Your task to perform on an android device: Is it going to rain today? Image 0: 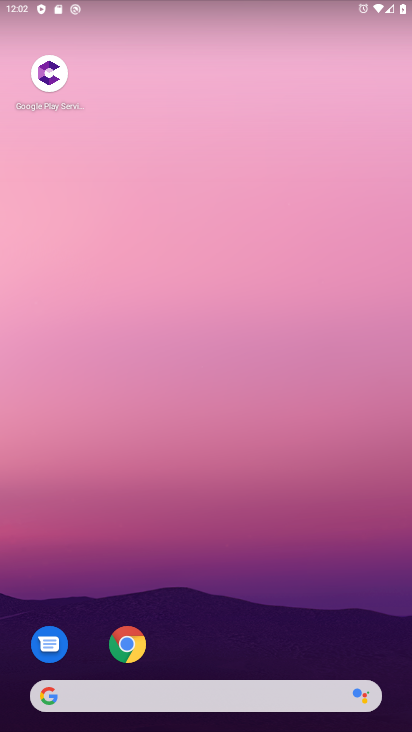
Step 0: drag from (282, 669) to (188, 75)
Your task to perform on an android device: Is it going to rain today? Image 1: 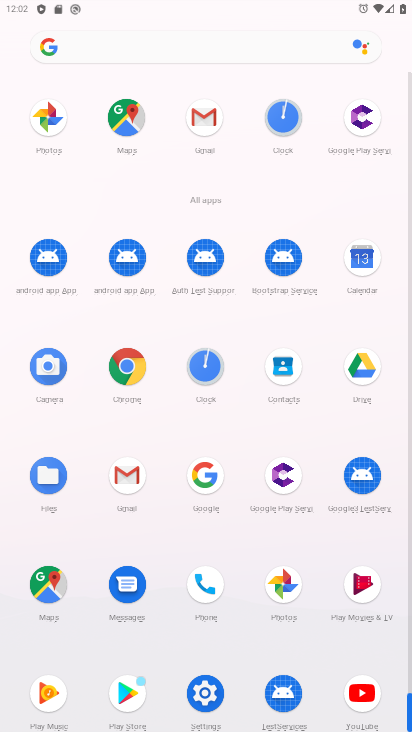
Step 1: click (134, 358)
Your task to perform on an android device: Is it going to rain today? Image 2: 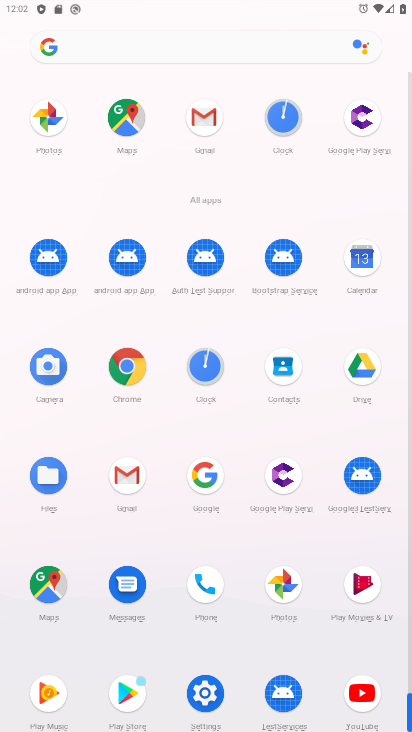
Step 2: click (126, 355)
Your task to perform on an android device: Is it going to rain today? Image 3: 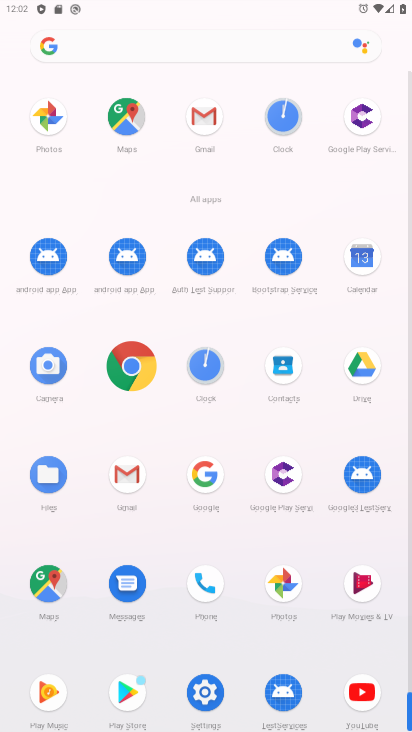
Step 3: click (124, 354)
Your task to perform on an android device: Is it going to rain today? Image 4: 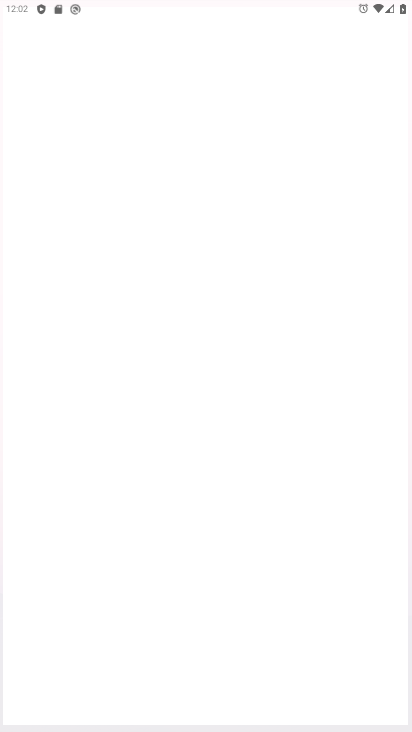
Step 4: click (122, 354)
Your task to perform on an android device: Is it going to rain today? Image 5: 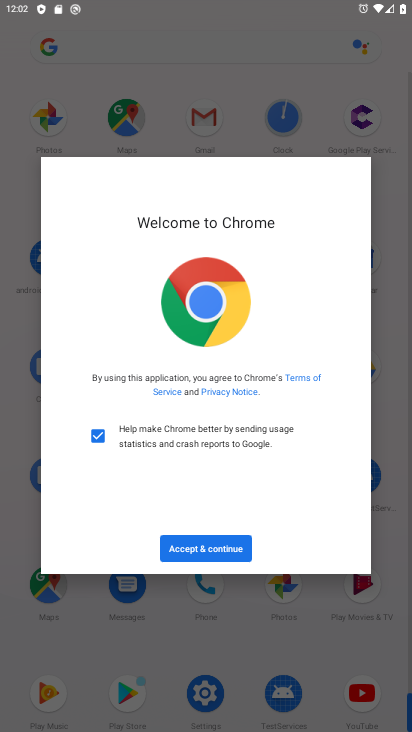
Step 5: click (225, 549)
Your task to perform on an android device: Is it going to rain today? Image 6: 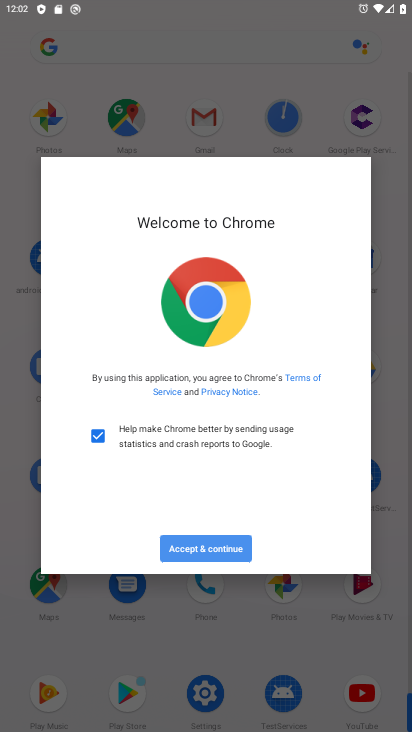
Step 6: click (222, 548)
Your task to perform on an android device: Is it going to rain today? Image 7: 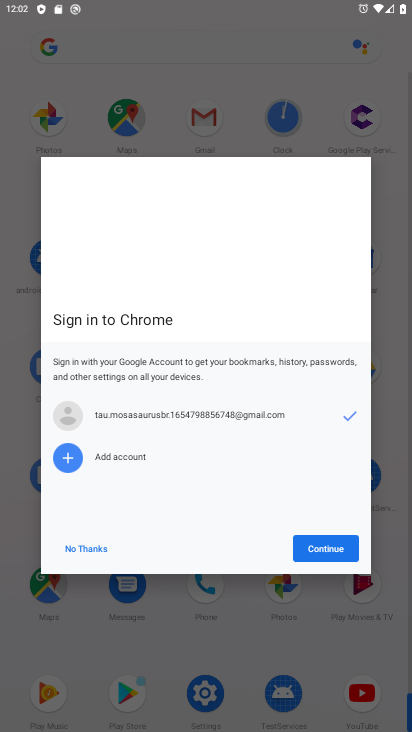
Step 7: click (231, 542)
Your task to perform on an android device: Is it going to rain today? Image 8: 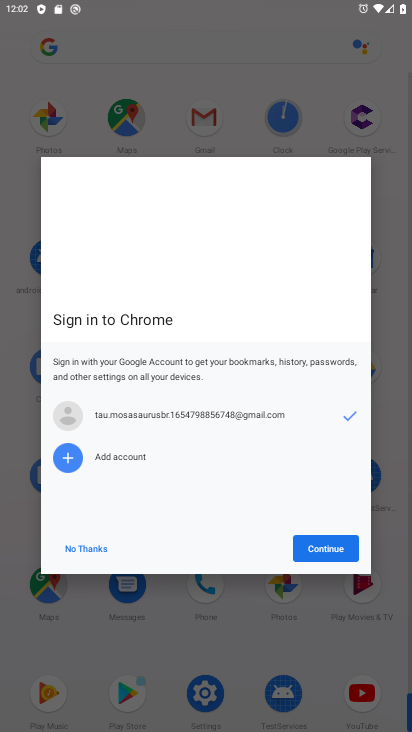
Step 8: click (232, 539)
Your task to perform on an android device: Is it going to rain today? Image 9: 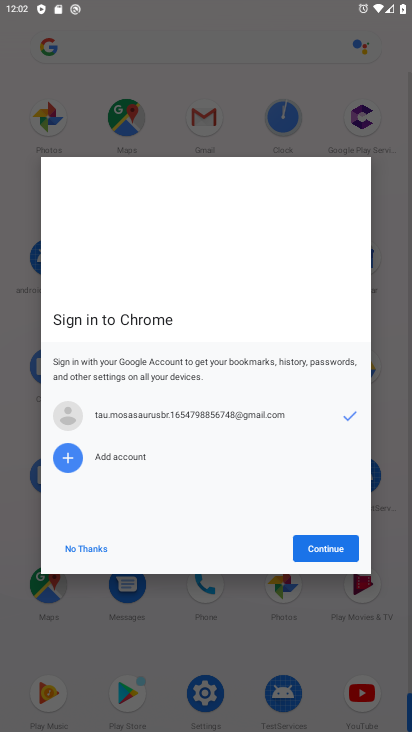
Step 9: click (328, 548)
Your task to perform on an android device: Is it going to rain today? Image 10: 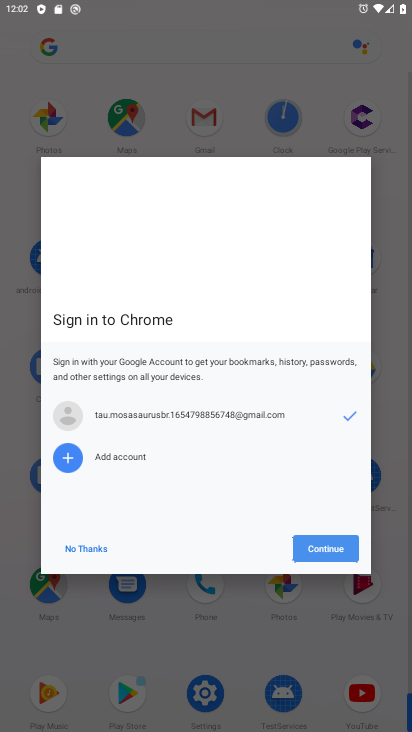
Step 10: click (332, 537)
Your task to perform on an android device: Is it going to rain today? Image 11: 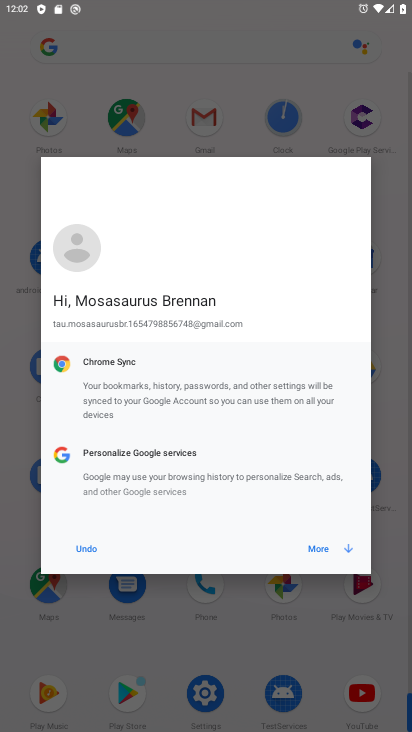
Step 11: click (331, 532)
Your task to perform on an android device: Is it going to rain today? Image 12: 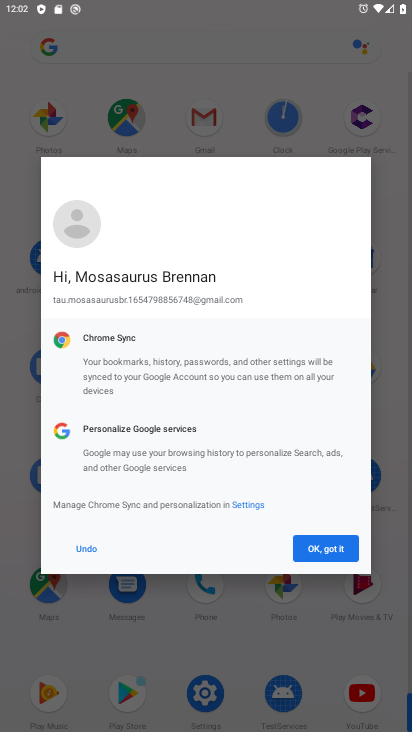
Step 12: click (335, 531)
Your task to perform on an android device: Is it going to rain today? Image 13: 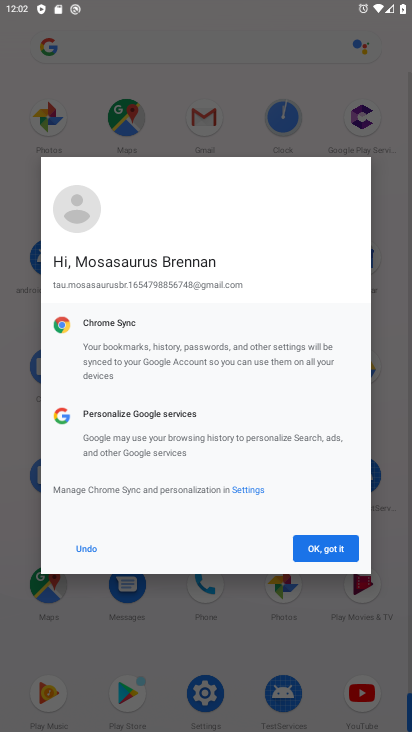
Step 13: click (334, 536)
Your task to perform on an android device: Is it going to rain today? Image 14: 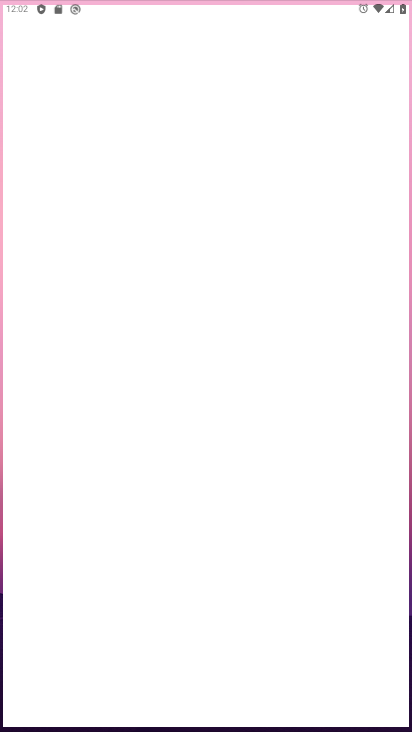
Step 14: click (323, 539)
Your task to perform on an android device: Is it going to rain today? Image 15: 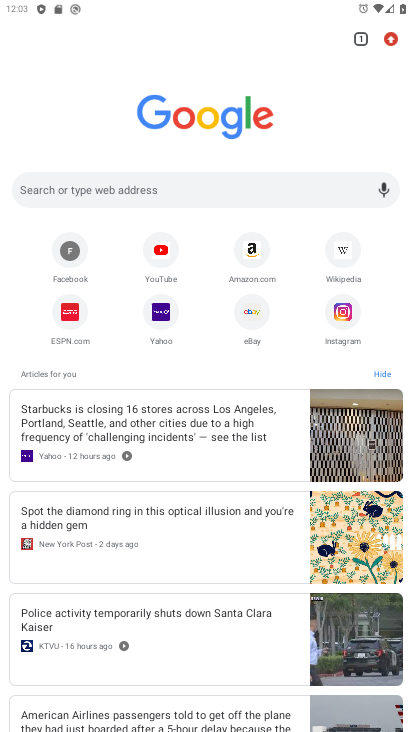
Step 15: type "is it going to rain today?"
Your task to perform on an android device: Is it going to rain today? Image 16: 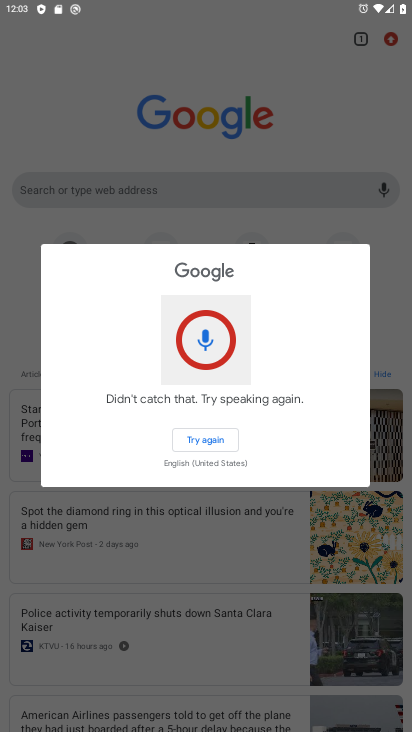
Step 16: click (305, 220)
Your task to perform on an android device: Is it going to rain today? Image 17: 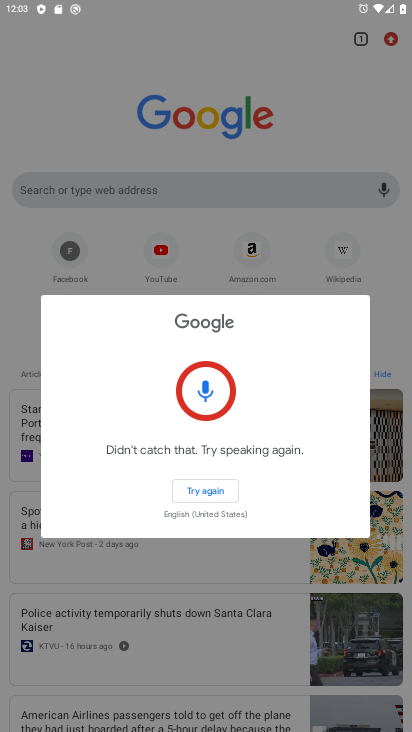
Step 17: click (304, 221)
Your task to perform on an android device: Is it going to rain today? Image 18: 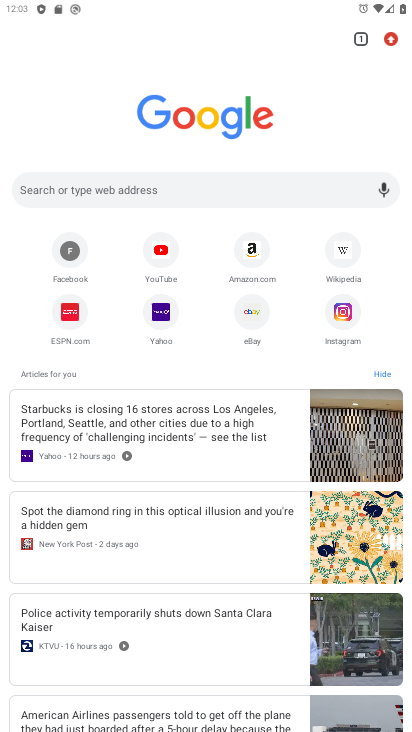
Step 18: click (70, 177)
Your task to perform on an android device: Is it going to rain today? Image 19: 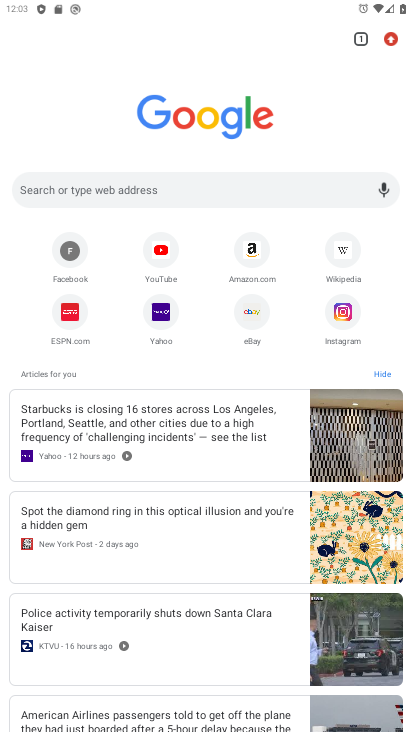
Step 19: click (61, 213)
Your task to perform on an android device: Is it going to rain today? Image 20: 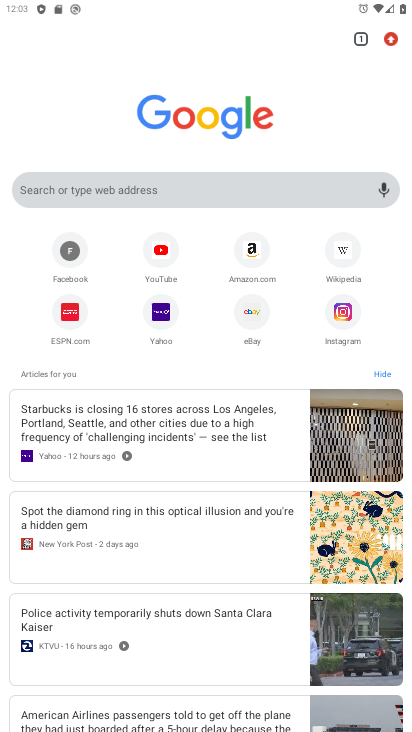
Step 20: click (55, 184)
Your task to perform on an android device: Is it going to rain today? Image 21: 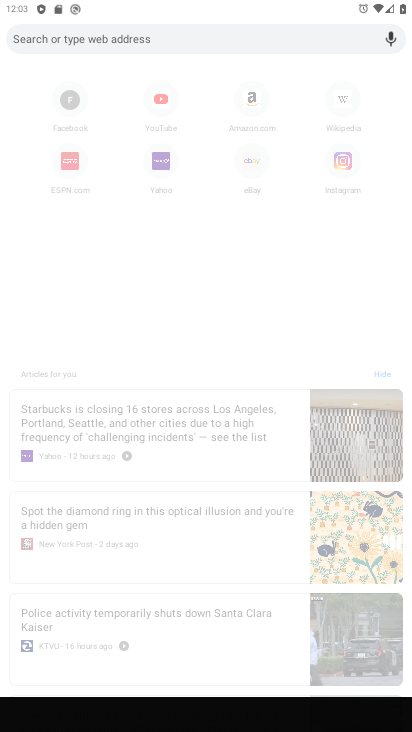
Step 21: click (55, 184)
Your task to perform on an android device: Is it going to rain today? Image 22: 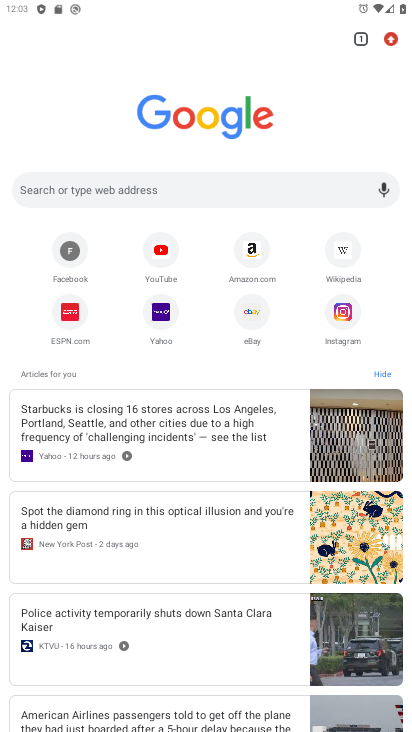
Step 22: click (95, 192)
Your task to perform on an android device: Is it going to rain today? Image 23: 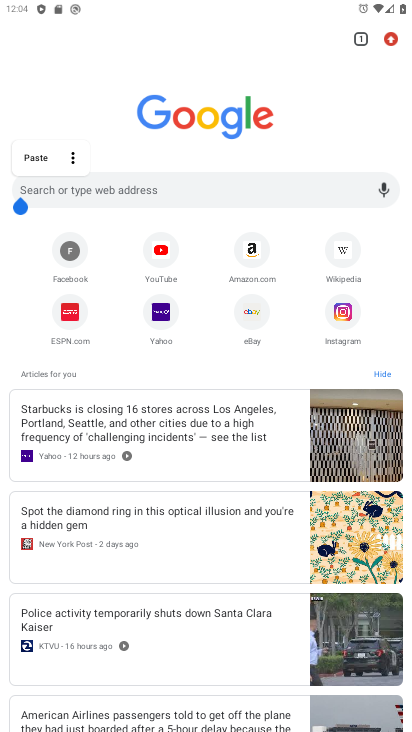
Step 23: click (89, 187)
Your task to perform on an android device: Is it going to rain today? Image 24: 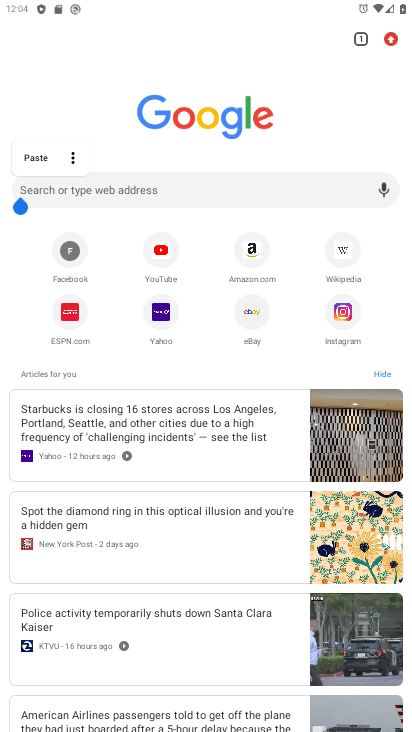
Step 24: click (85, 191)
Your task to perform on an android device: Is it going to rain today? Image 25: 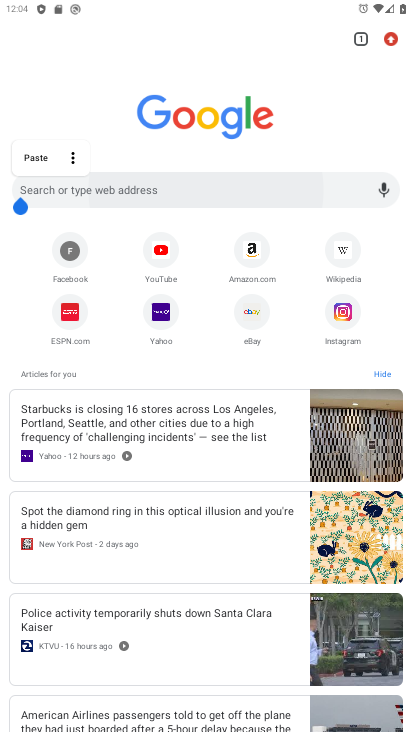
Step 25: click (85, 191)
Your task to perform on an android device: Is it going to rain today? Image 26: 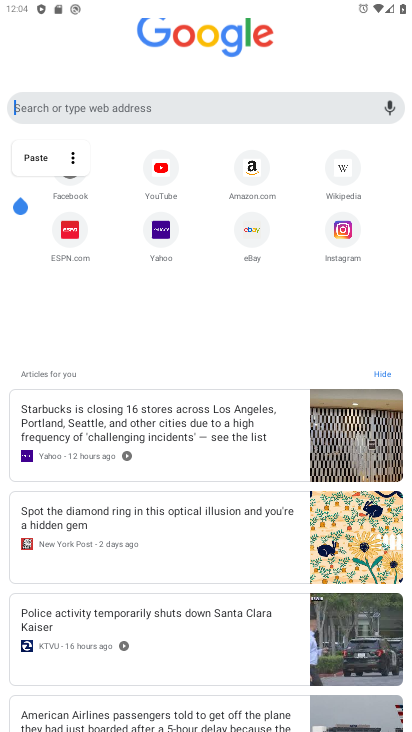
Step 26: click (85, 191)
Your task to perform on an android device: Is it going to rain today? Image 27: 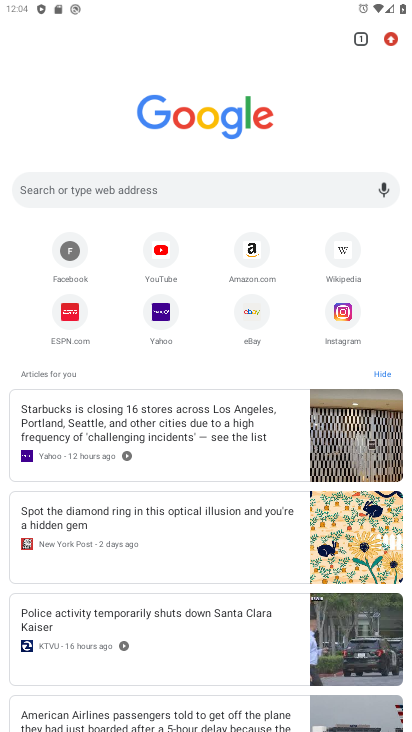
Step 27: click (62, 185)
Your task to perform on an android device: Is it going to rain today? Image 28: 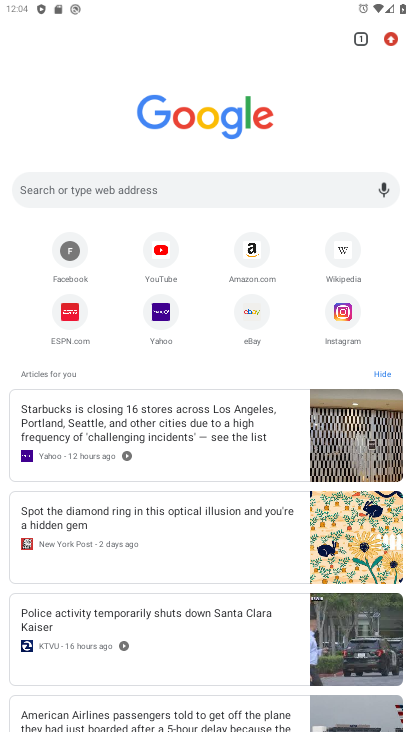
Step 28: click (62, 185)
Your task to perform on an android device: Is it going to rain today? Image 29: 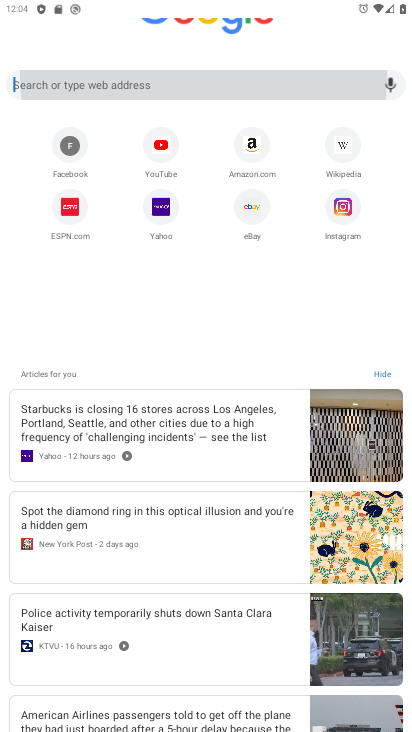
Step 29: click (62, 185)
Your task to perform on an android device: Is it going to rain today? Image 30: 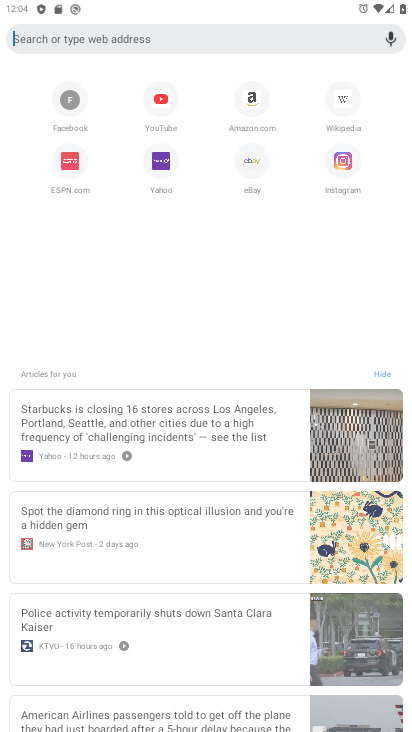
Step 30: click (62, 185)
Your task to perform on an android device: Is it going to rain today? Image 31: 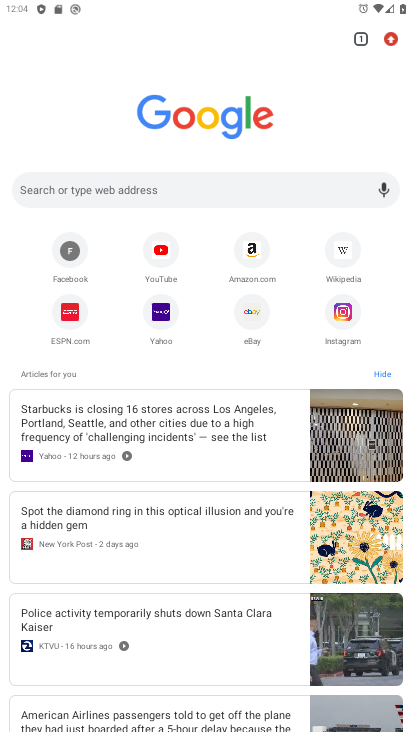
Step 31: type "is it going to rain today?"
Your task to perform on an android device: Is it going to rain today? Image 32: 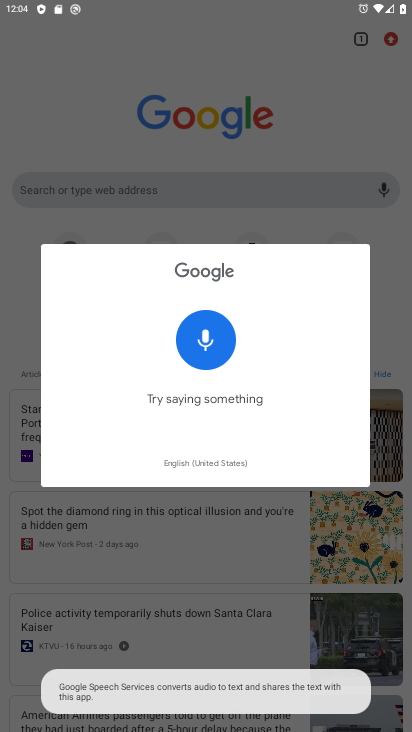
Step 32: click (257, 217)
Your task to perform on an android device: Is it going to rain today? Image 33: 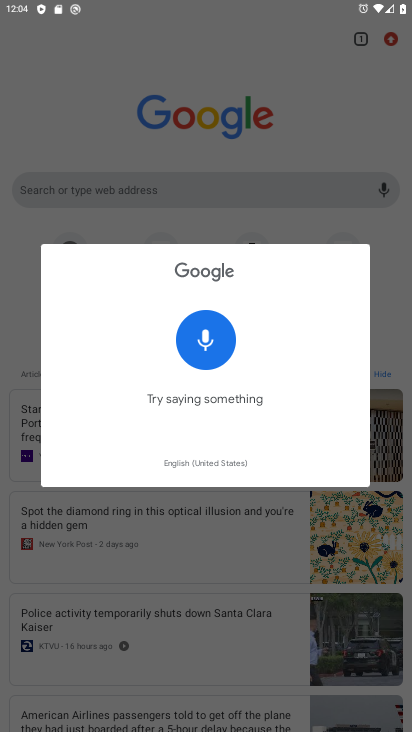
Step 33: click (255, 230)
Your task to perform on an android device: Is it going to rain today? Image 34: 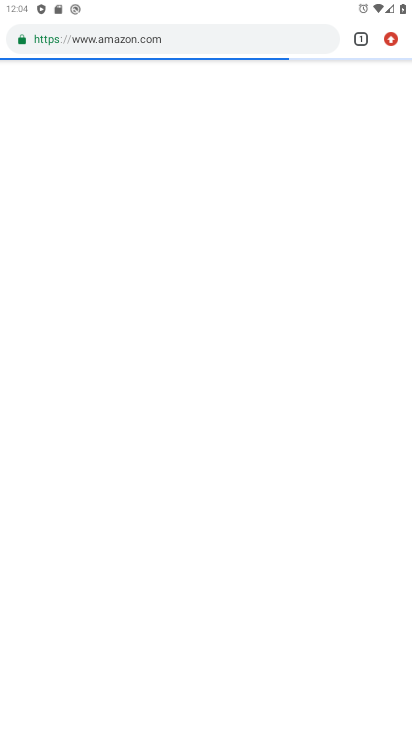
Step 34: task complete